Your task to perform on an android device: Turn off the flashlight Image 0: 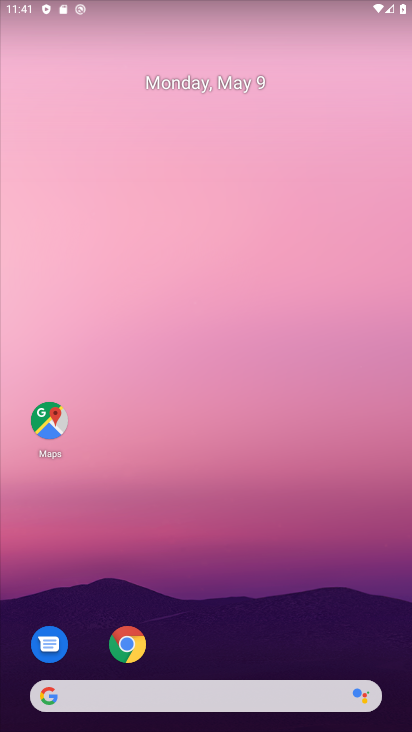
Step 0: drag from (237, 635) to (344, 37)
Your task to perform on an android device: Turn off the flashlight Image 1: 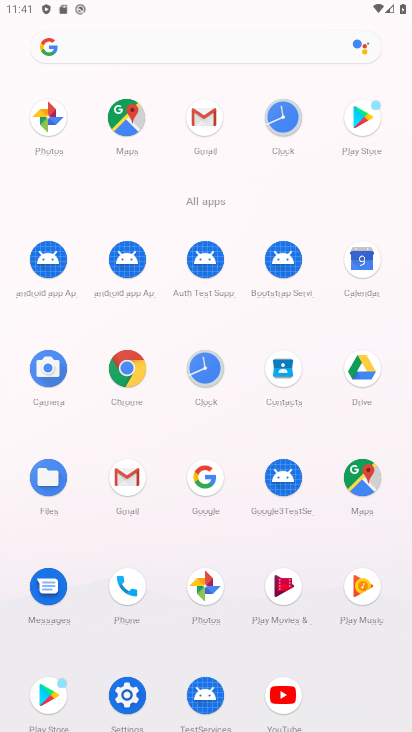
Step 1: click (129, 700)
Your task to perform on an android device: Turn off the flashlight Image 2: 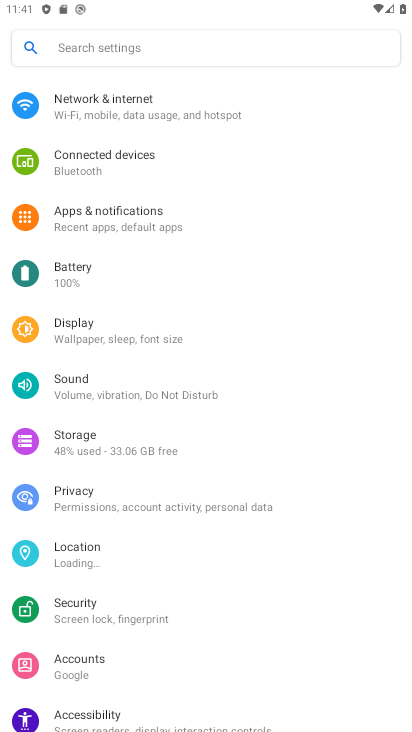
Step 2: click (127, 48)
Your task to perform on an android device: Turn off the flashlight Image 3: 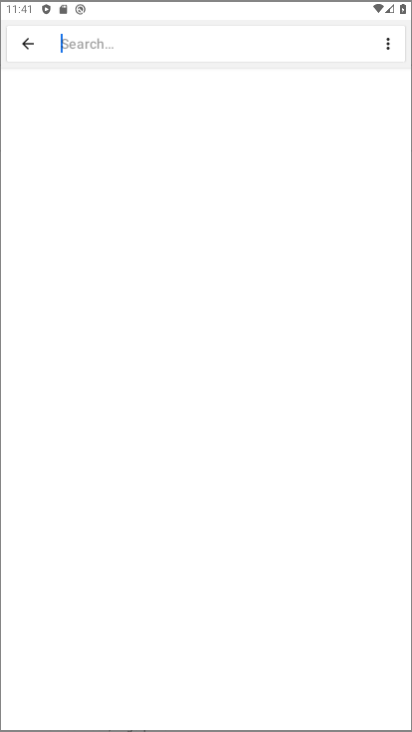
Step 3: click (115, 58)
Your task to perform on an android device: Turn off the flashlight Image 4: 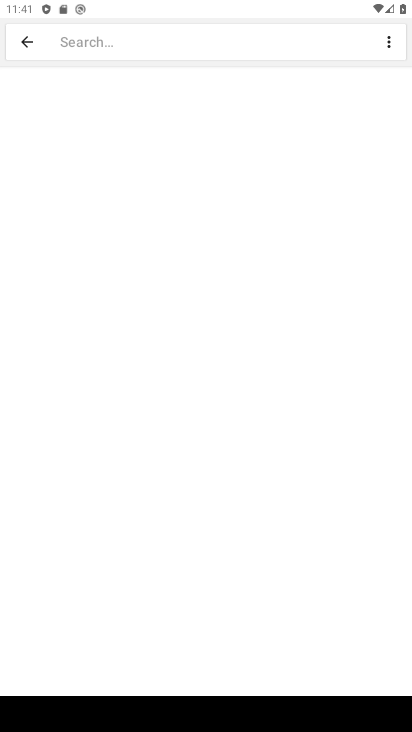
Step 4: type "flashlight"
Your task to perform on an android device: Turn off the flashlight Image 5: 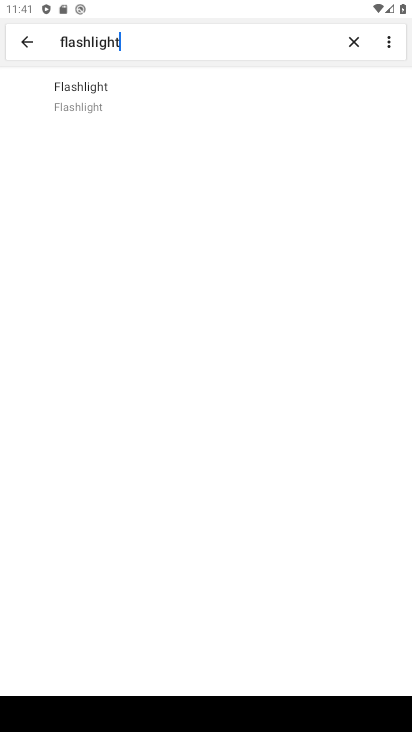
Step 5: click (96, 102)
Your task to perform on an android device: Turn off the flashlight Image 6: 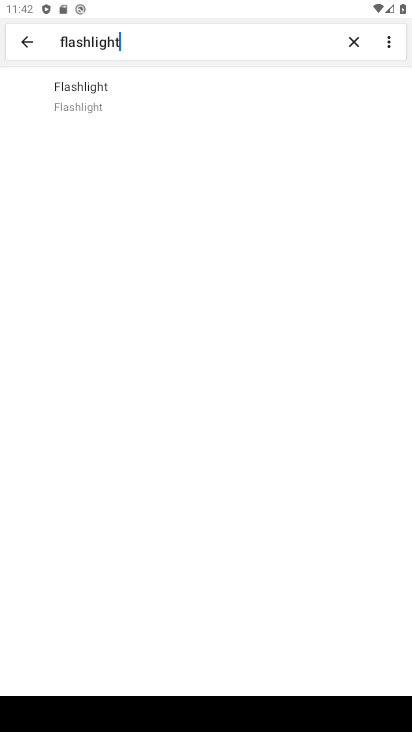
Step 6: click (63, 87)
Your task to perform on an android device: Turn off the flashlight Image 7: 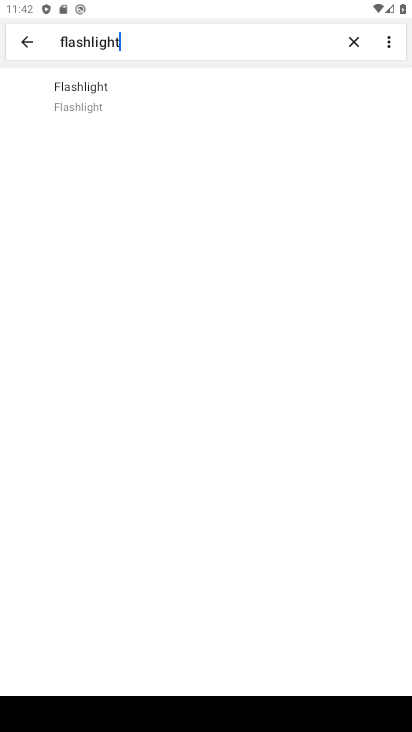
Step 7: task complete